Your task to perform on an android device: toggle pop-ups in chrome Image 0: 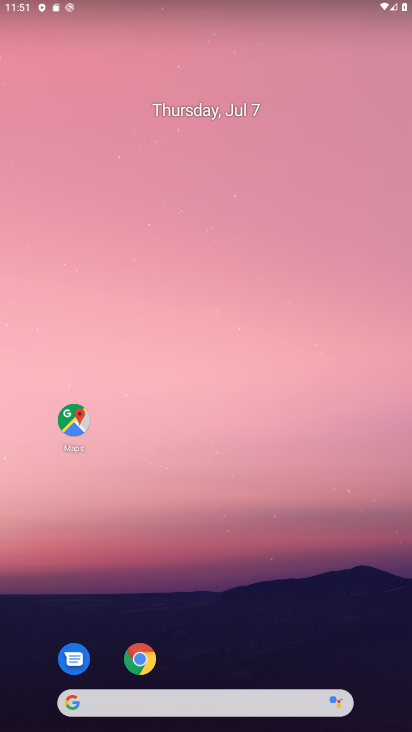
Step 0: click (134, 656)
Your task to perform on an android device: toggle pop-ups in chrome Image 1: 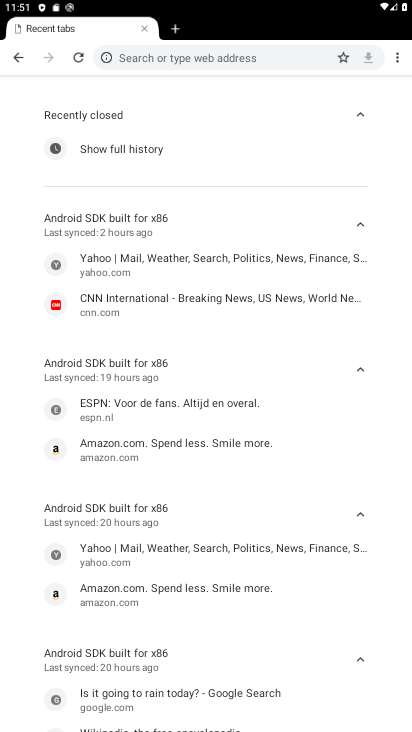
Step 1: click (19, 57)
Your task to perform on an android device: toggle pop-ups in chrome Image 2: 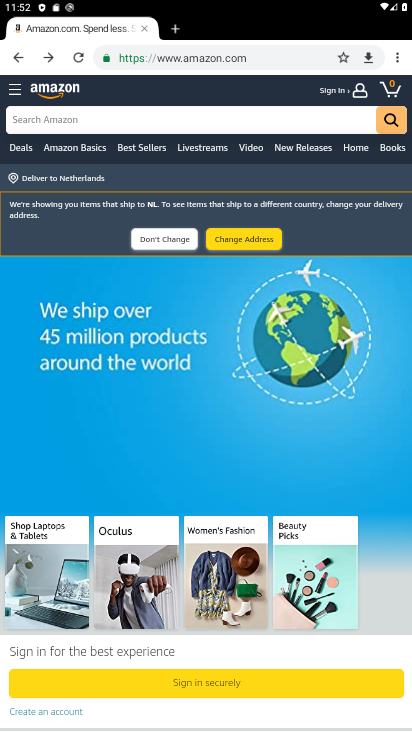
Step 2: click (396, 56)
Your task to perform on an android device: toggle pop-ups in chrome Image 3: 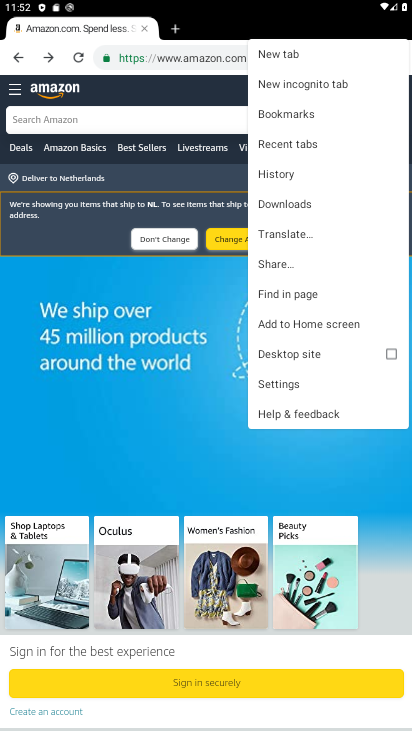
Step 3: click (291, 379)
Your task to perform on an android device: toggle pop-ups in chrome Image 4: 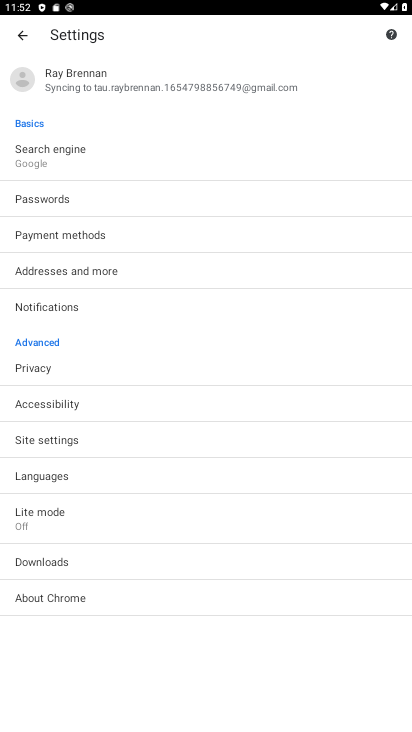
Step 4: click (39, 437)
Your task to perform on an android device: toggle pop-ups in chrome Image 5: 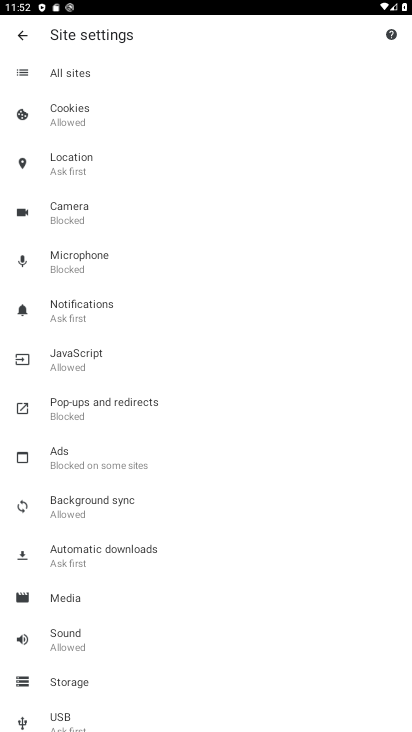
Step 5: click (71, 402)
Your task to perform on an android device: toggle pop-ups in chrome Image 6: 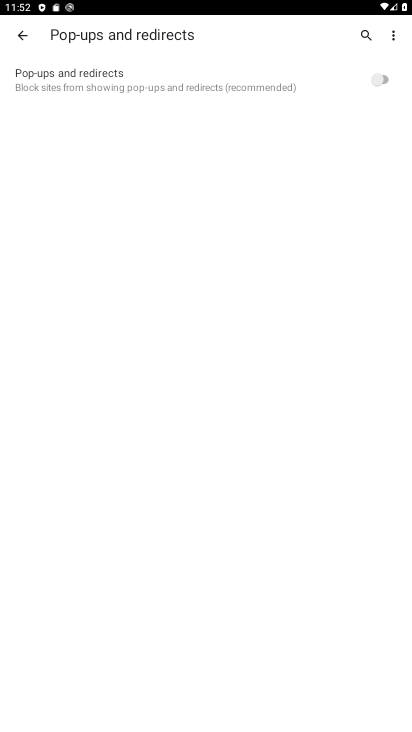
Step 6: click (371, 74)
Your task to perform on an android device: toggle pop-ups in chrome Image 7: 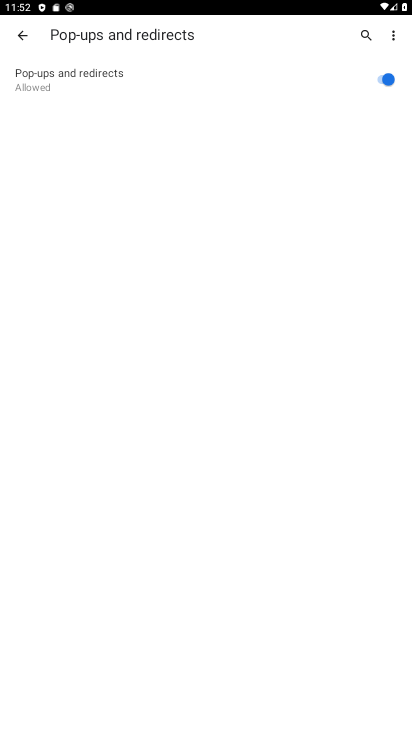
Step 7: task complete